Your task to perform on an android device: Do I have any events this weekend? Image 0: 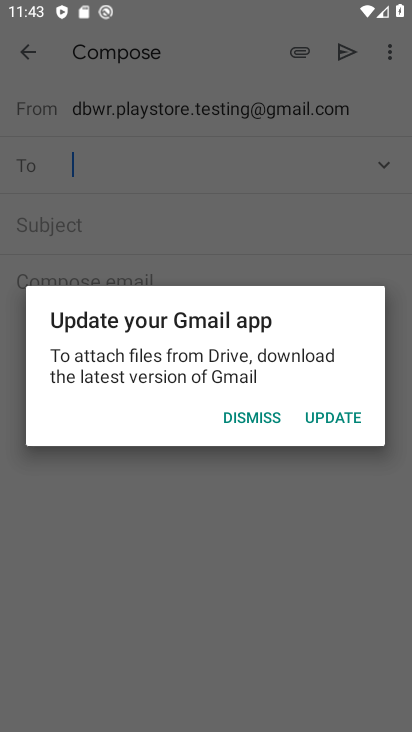
Step 0: press home button
Your task to perform on an android device: Do I have any events this weekend? Image 1: 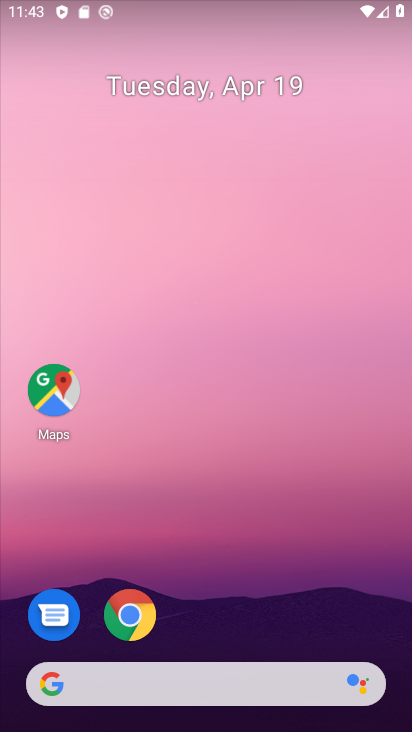
Step 1: drag from (14, 281) to (355, 250)
Your task to perform on an android device: Do I have any events this weekend? Image 2: 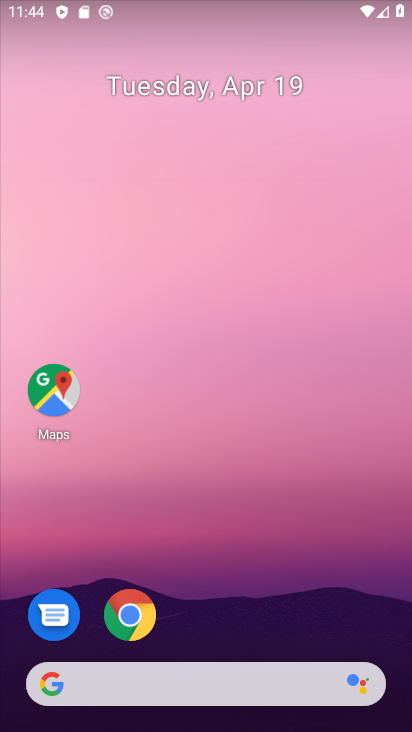
Step 2: click (284, 286)
Your task to perform on an android device: Do I have any events this weekend? Image 3: 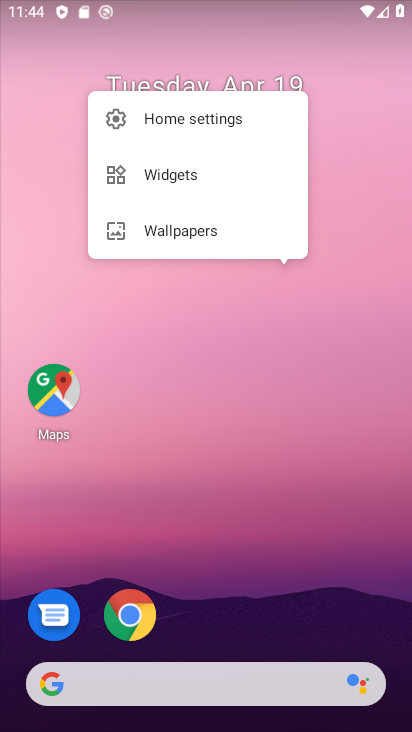
Step 3: press back button
Your task to perform on an android device: Do I have any events this weekend? Image 4: 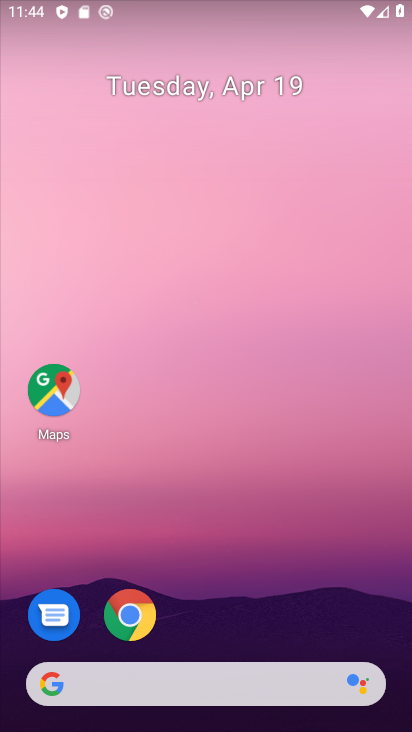
Step 4: drag from (357, 597) to (334, 69)
Your task to perform on an android device: Do I have any events this weekend? Image 5: 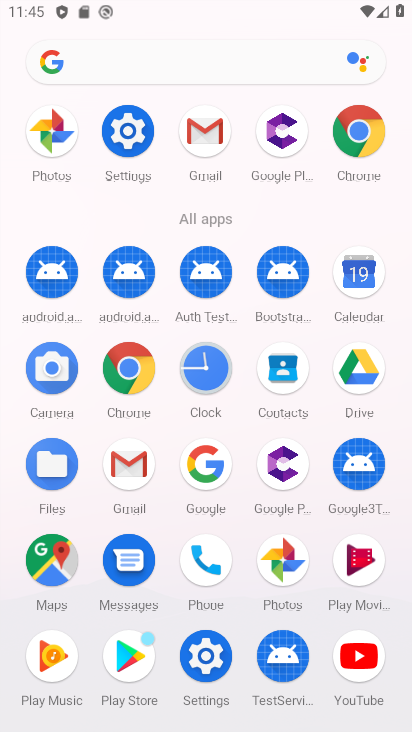
Step 5: click (198, 362)
Your task to perform on an android device: Do I have any events this weekend? Image 6: 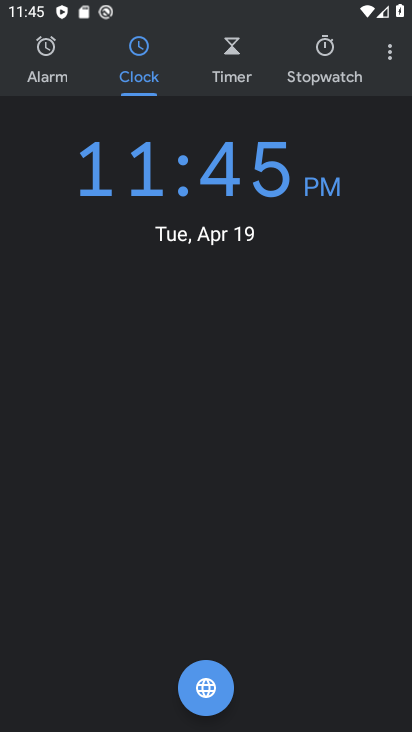
Step 6: press home button
Your task to perform on an android device: Do I have any events this weekend? Image 7: 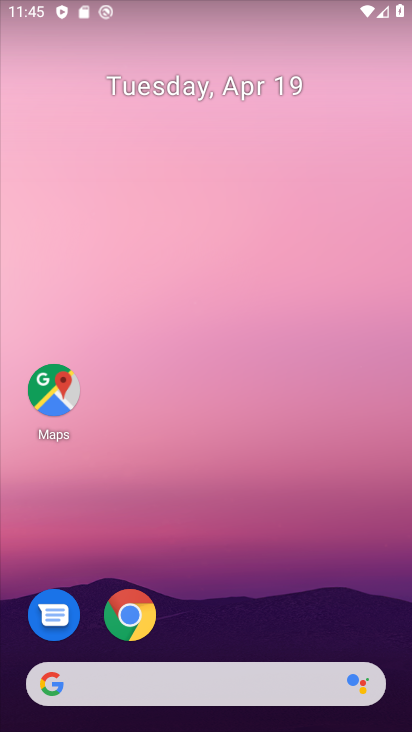
Step 7: drag from (308, 323) to (287, 190)
Your task to perform on an android device: Do I have any events this weekend? Image 8: 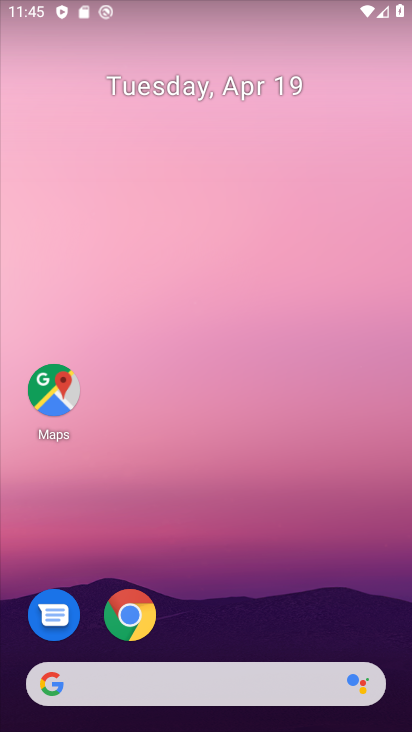
Step 8: drag from (334, 280) to (313, 153)
Your task to perform on an android device: Do I have any events this weekend? Image 9: 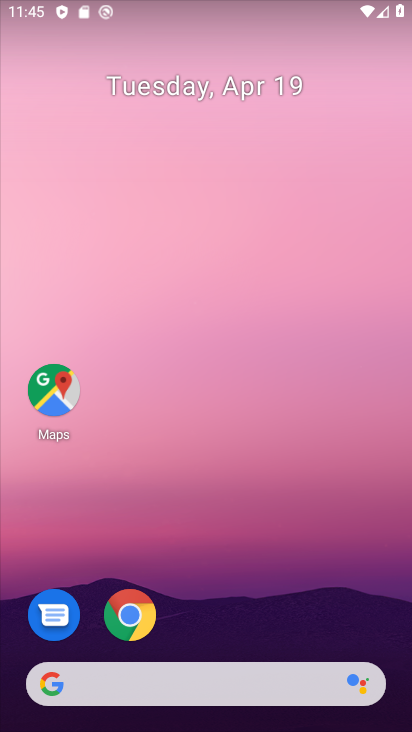
Step 9: click (349, 69)
Your task to perform on an android device: Do I have any events this weekend? Image 10: 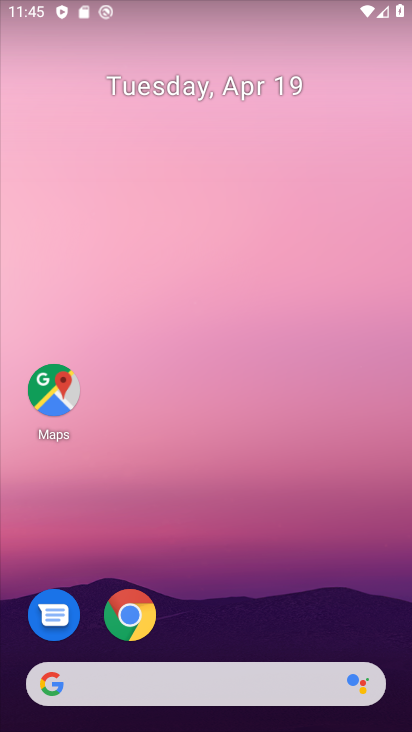
Step 10: drag from (362, 454) to (296, 126)
Your task to perform on an android device: Do I have any events this weekend? Image 11: 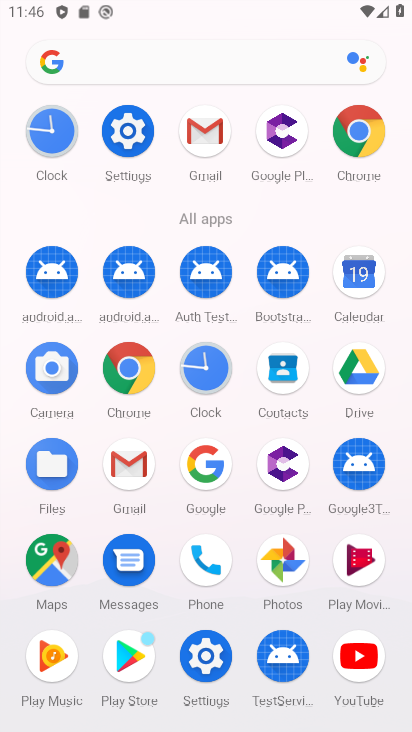
Step 11: click (359, 266)
Your task to perform on an android device: Do I have any events this weekend? Image 12: 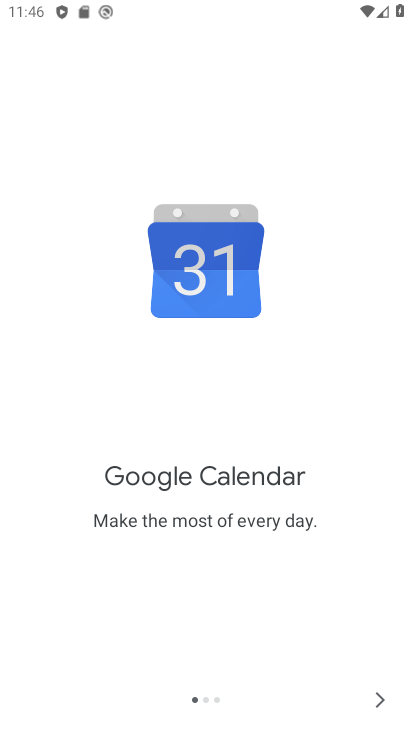
Step 12: click (382, 692)
Your task to perform on an android device: Do I have any events this weekend? Image 13: 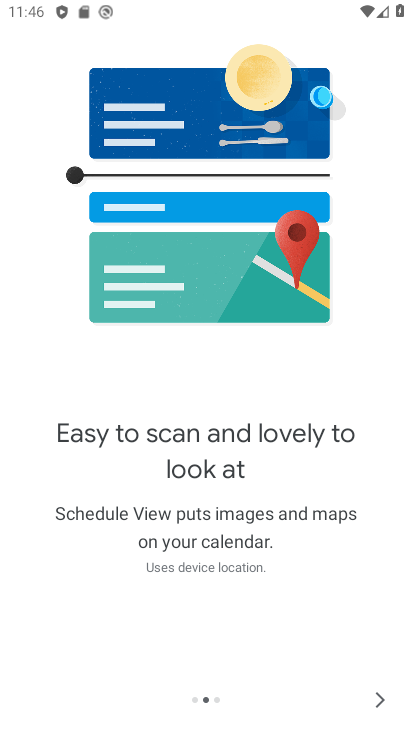
Step 13: click (382, 692)
Your task to perform on an android device: Do I have any events this weekend? Image 14: 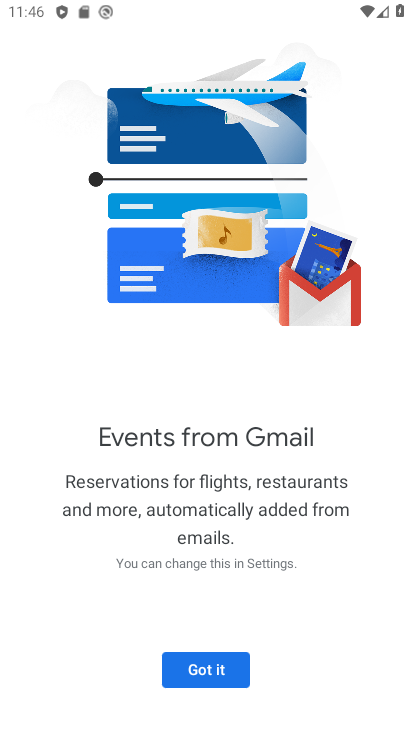
Step 14: click (206, 663)
Your task to perform on an android device: Do I have any events this weekend? Image 15: 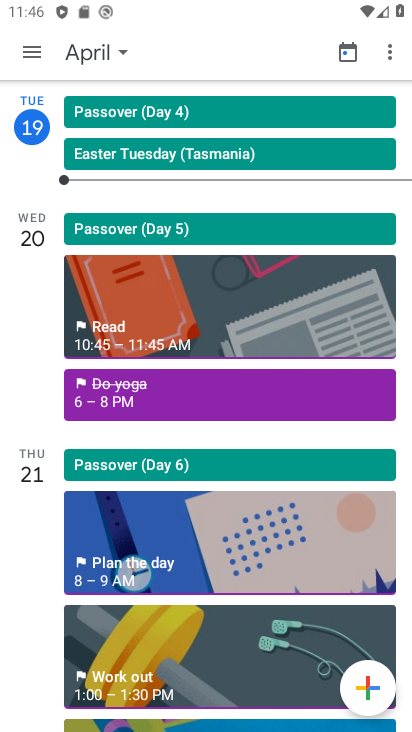
Step 15: click (121, 46)
Your task to perform on an android device: Do I have any events this weekend? Image 16: 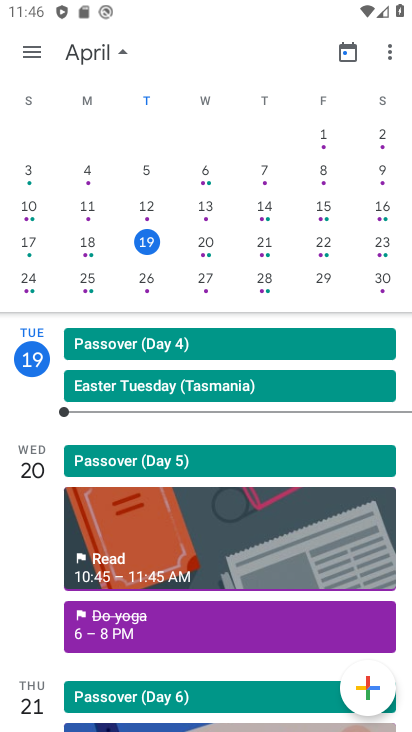
Step 16: click (28, 45)
Your task to perform on an android device: Do I have any events this weekend? Image 17: 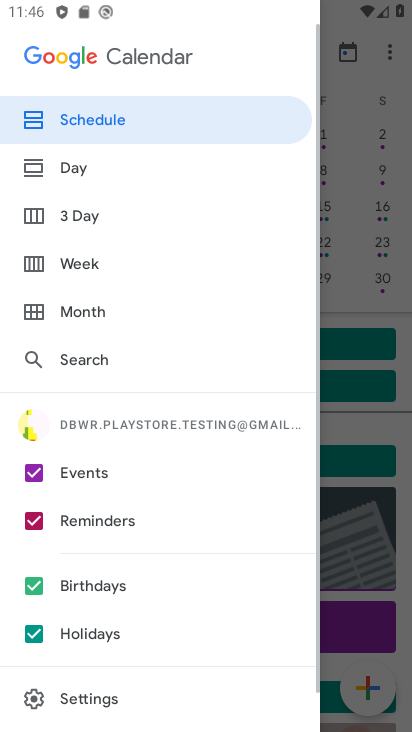
Step 17: click (15, 518)
Your task to perform on an android device: Do I have any events this weekend? Image 18: 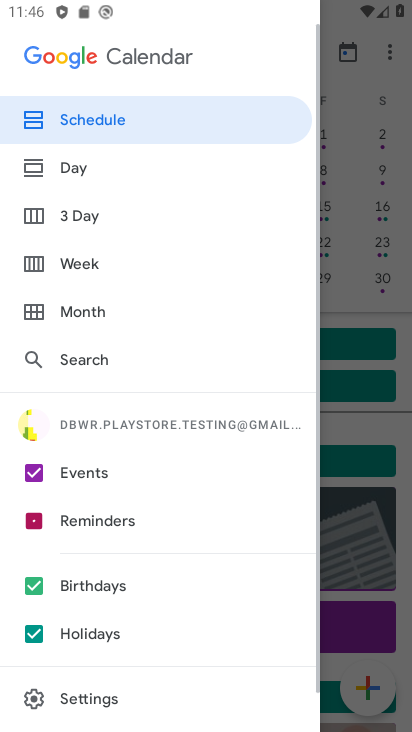
Step 18: click (23, 519)
Your task to perform on an android device: Do I have any events this weekend? Image 19: 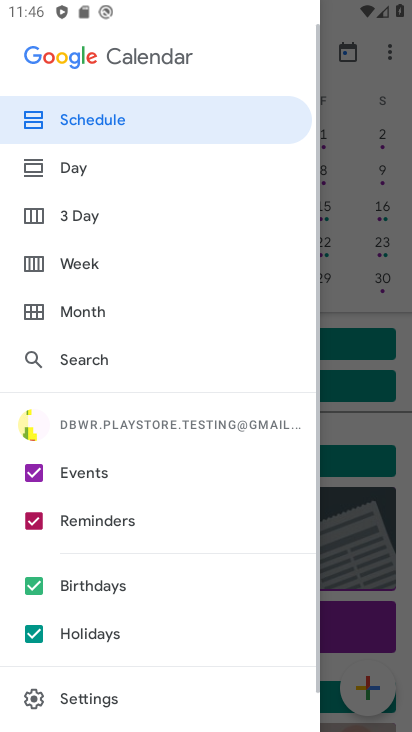
Step 19: click (38, 583)
Your task to perform on an android device: Do I have any events this weekend? Image 20: 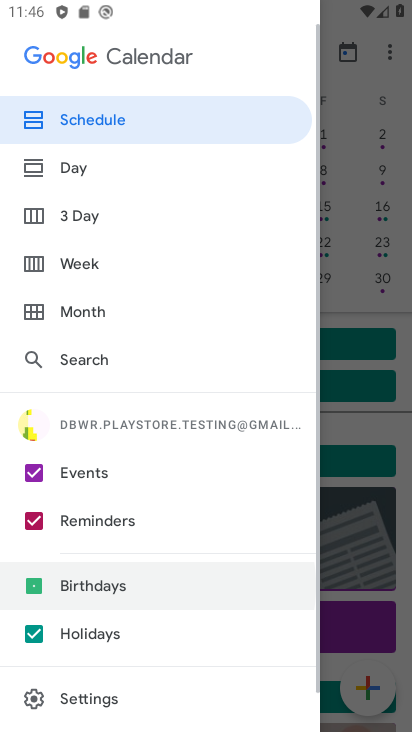
Step 20: click (36, 624)
Your task to perform on an android device: Do I have any events this weekend? Image 21: 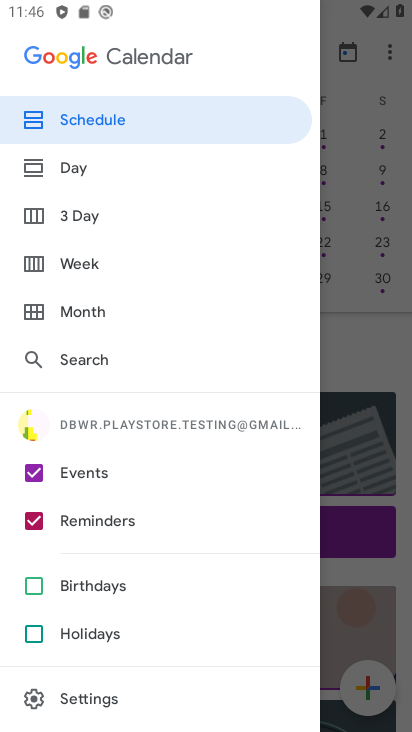
Step 21: click (72, 256)
Your task to perform on an android device: Do I have any events this weekend? Image 22: 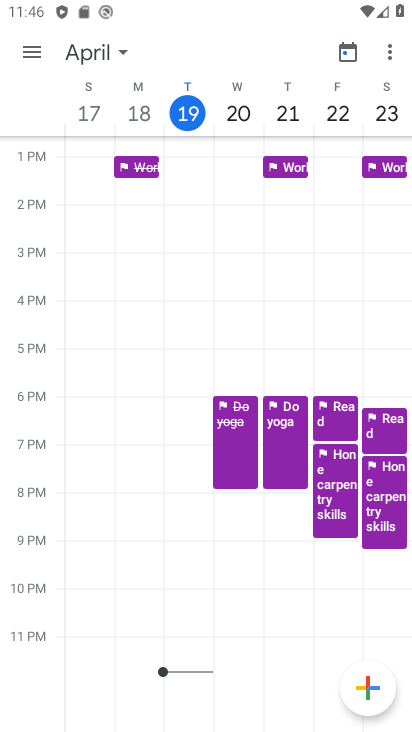
Step 22: task complete